Your task to perform on an android device: Open calendar and show me the second week of next month Image 0: 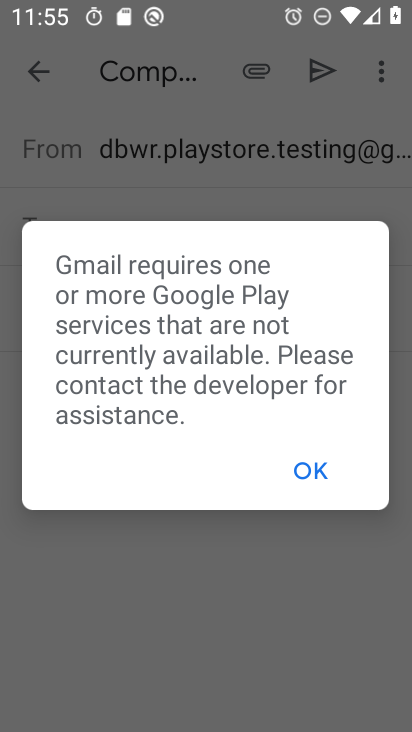
Step 0: click (356, 498)
Your task to perform on an android device: Open calendar and show me the second week of next month Image 1: 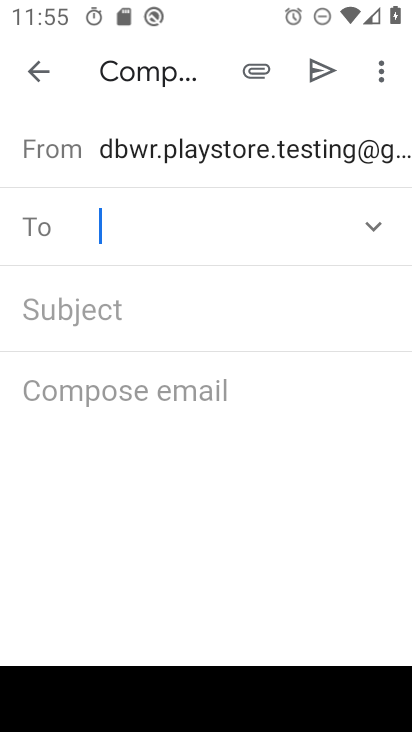
Step 1: press back button
Your task to perform on an android device: Open calendar and show me the second week of next month Image 2: 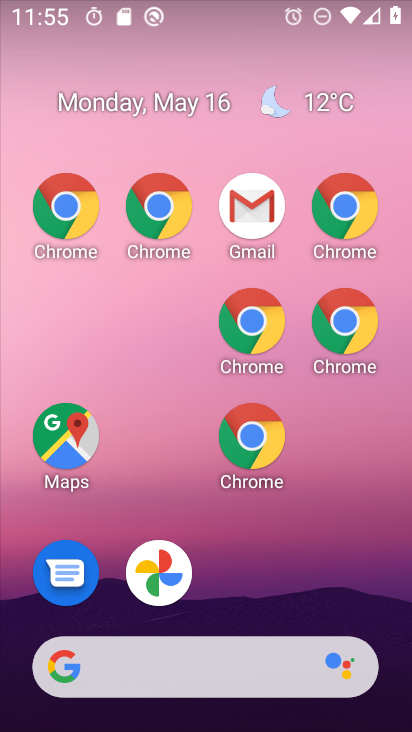
Step 2: drag from (378, 584) to (260, 139)
Your task to perform on an android device: Open calendar and show me the second week of next month Image 3: 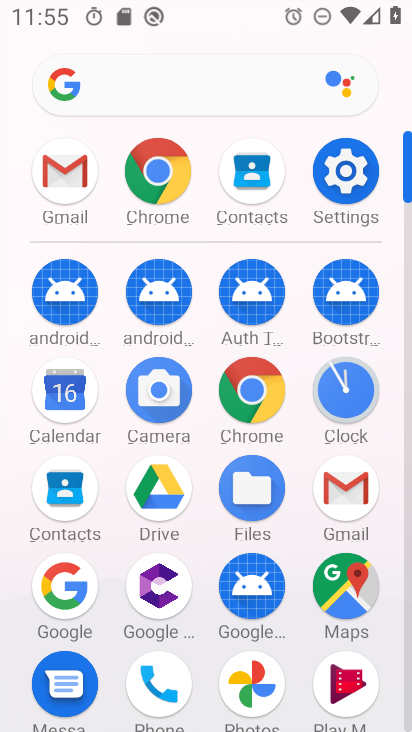
Step 3: click (81, 388)
Your task to perform on an android device: Open calendar and show me the second week of next month Image 4: 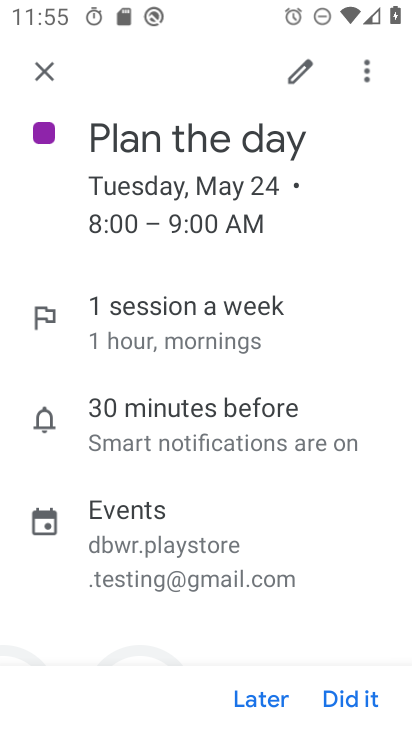
Step 4: click (42, 60)
Your task to perform on an android device: Open calendar and show me the second week of next month Image 5: 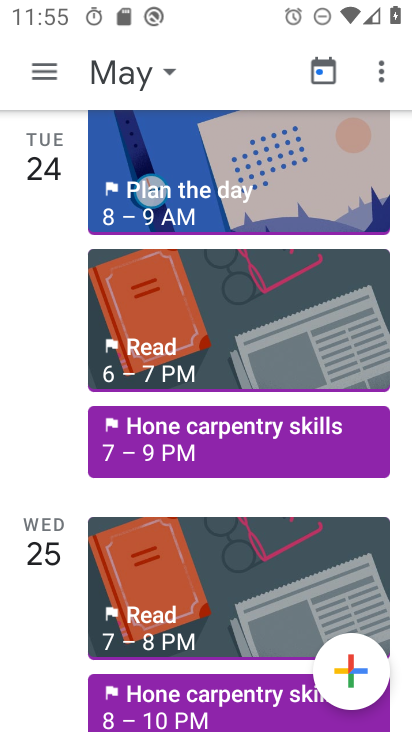
Step 5: drag from (178, 169) to (234, 532)
Your task to perform on an android device: Open calendar and show me the second week of next month Image 6: 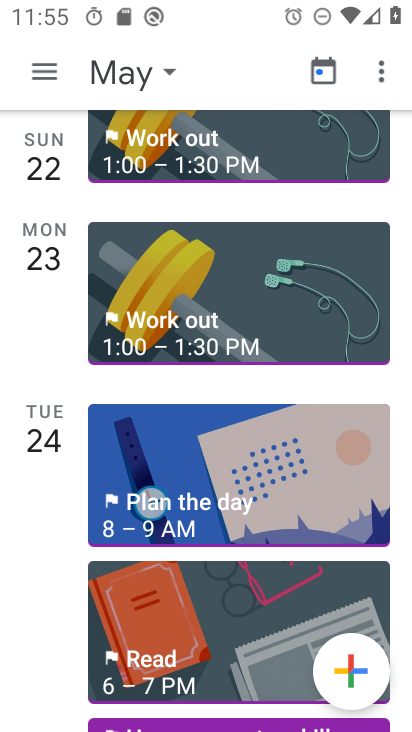
Step 6: drag from (209, 243) to (245, 708)
Your task to perform on an android device: Open calendar and show me the second week of next month Image 7: 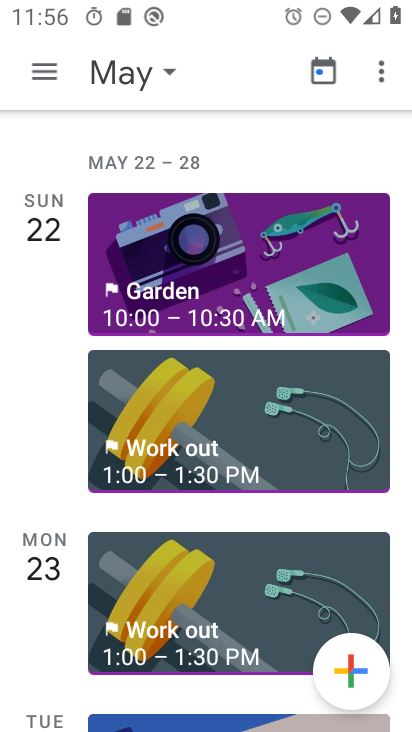
Step 7: drag from (190, 269) to (186, 619)
Your task to perform on an android device: Open calendar and show me the second week of next month Image 8: 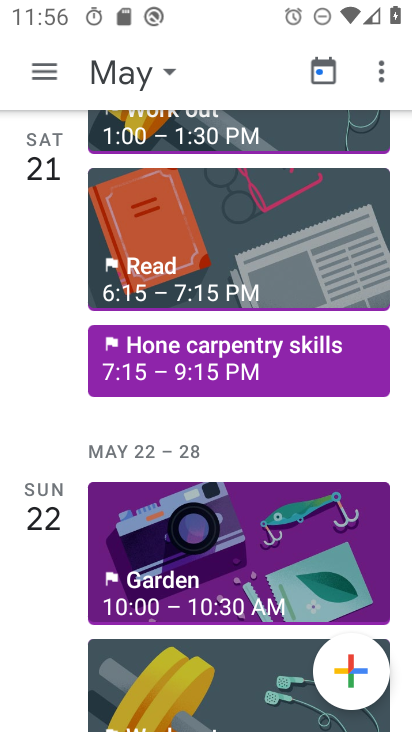
Step 8: drag from (182, 259) to (256, 706)
Your task to perform on an android device: Open calendar and show me the second week of next month Image 9: 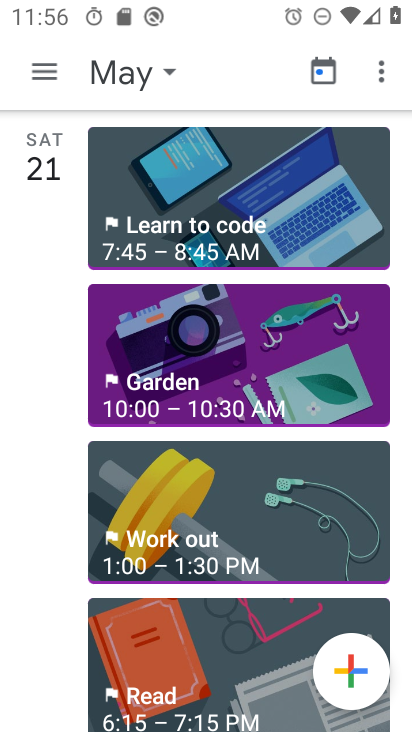
Step 9: drag from (138, 194) to (196, 593)
Your task to perform on an android device: Open calendar and show me the second week of next month Image 10: 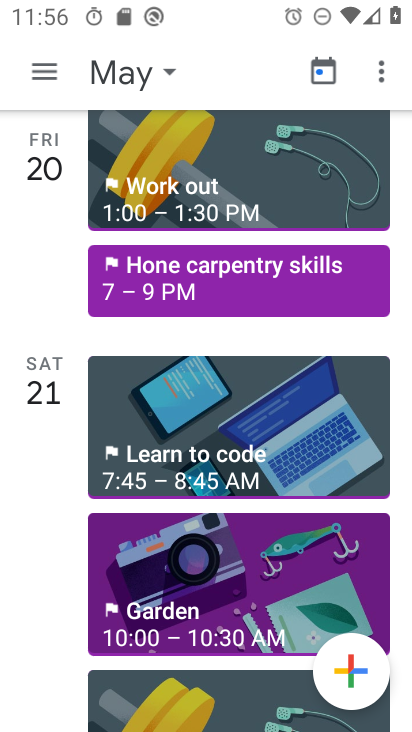
Step 10: drag from (182, 277) to (256, 673)
Your task to perform on an android device: Open calendar and show me the second week of next month Image 11: 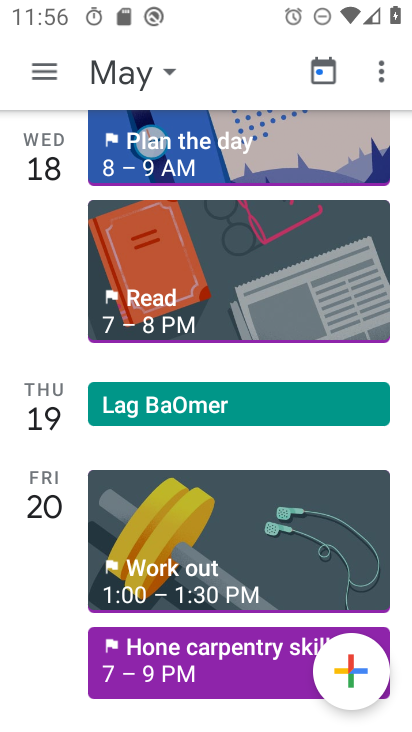
Step 11: click (170, 71)
Your task to perform on an android device: Open calendar and show me the second week of next month Image 12: 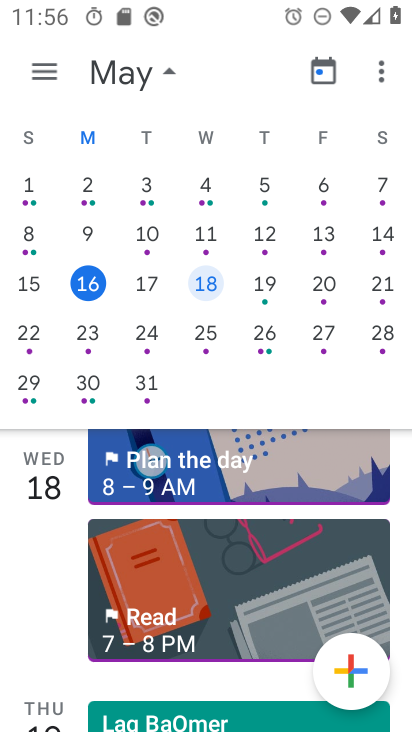
Step 12: drag from (283, 273) to (61, 292)
Your task to perform on an android device: Open calendar and show me the second week of next month Image 13: 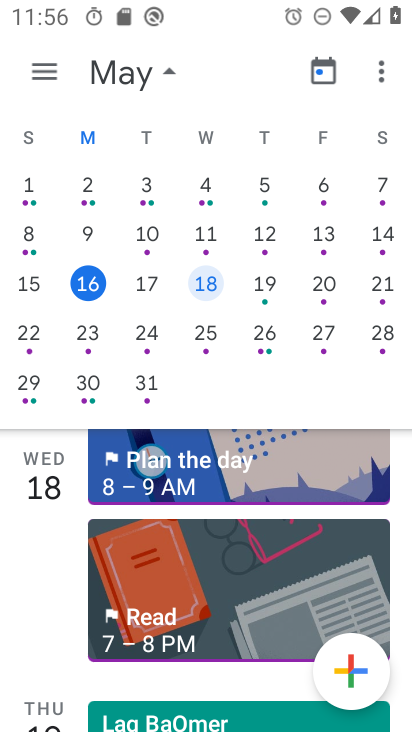
Step 13: drag from (288, 269) to (1, 277)
Your task to perform on an android device: Open calendar and show me the second week of next month Image 14: 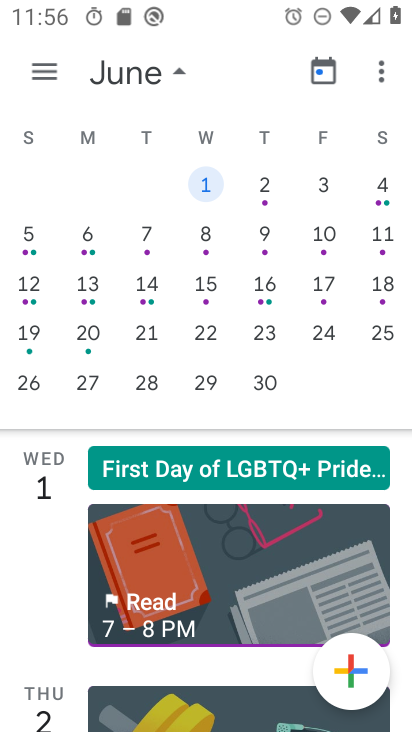
Step 14: click (211, 235)
Your task to perform on an android device: Open calendar and show me the second week of next month Image 15: 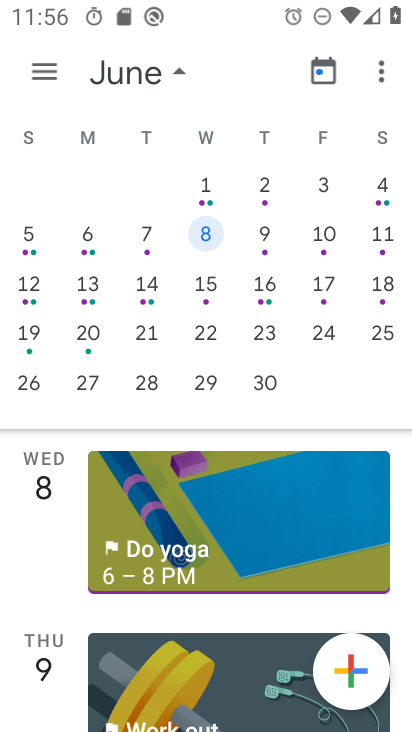
Step 15: click (210, 233)
Your task to perform on an android device: Open calendar and show me the second week of next month Image 16: 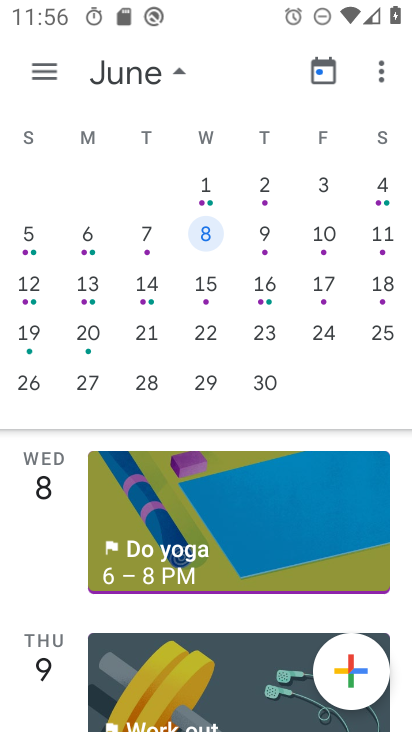
Step 16: click (208, 231)
Your task to perform on an android device: Open calendar and show me the second week of next month Image 17: 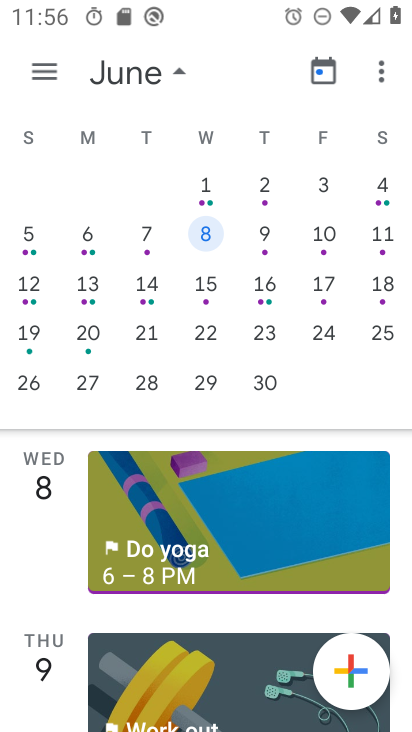
Step 17: click (207, 231)
Your task to perform on an android device: Open calendar and show me the second week of next month Image 18: 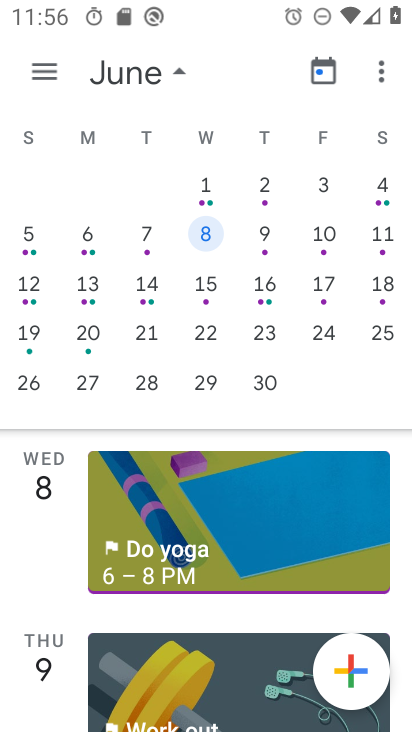
Step 18: task complete